Your task to perform on an android device: toggle notification dots Image 0: 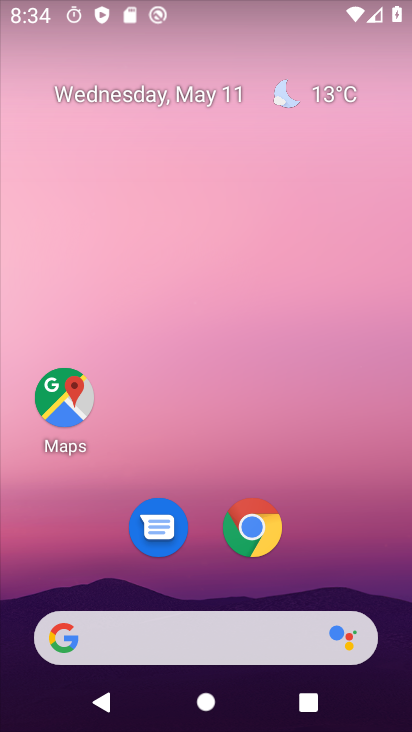
Step 0: drag from (206, 567) to (219, 72)
Your task to perform on an android device: toggle notification dots Image 1: 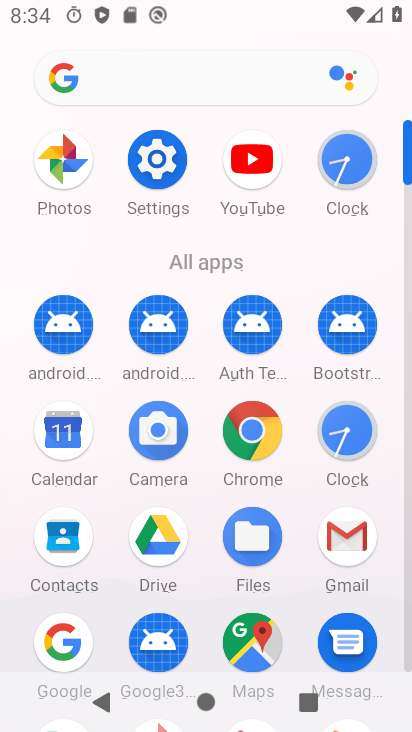
Step 1: click (165, 157)
Your task to perform on an android device: toggle notification dots Image 2: 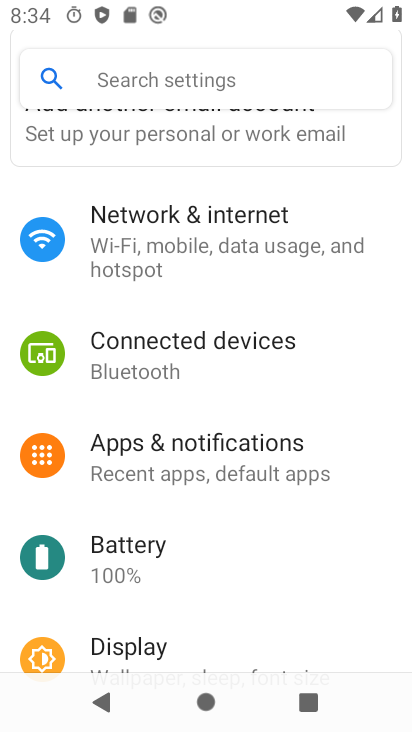
Step 2: click (181, 464)
Your task to perform on an android device: toggle notification dots Image 3: 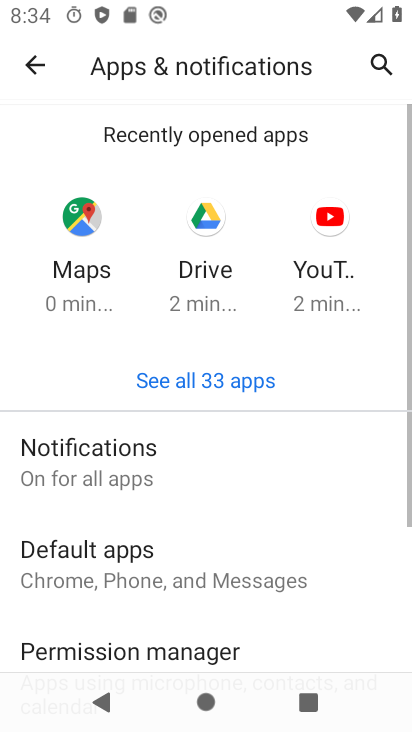
Step 3: click (141, 460)
Your task to perform on an android device: toggle notification dots Image 4: 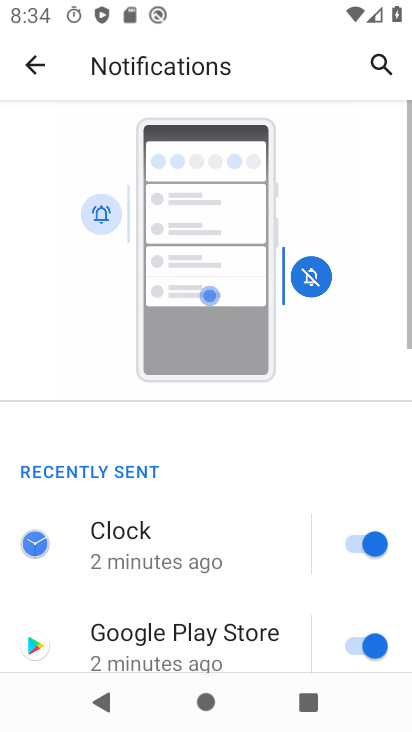
Step 4: drag from (227, 521) to (199, 7)
Your task to perform on an android device: toggle notification dots Image 5: 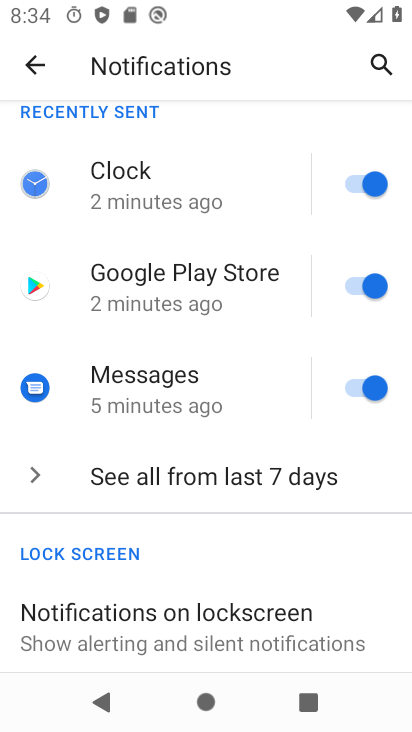
Step 5: drag from (225, 571) to (214, 159)
Your task to perform on an android device: toggle notification dots Image 6: 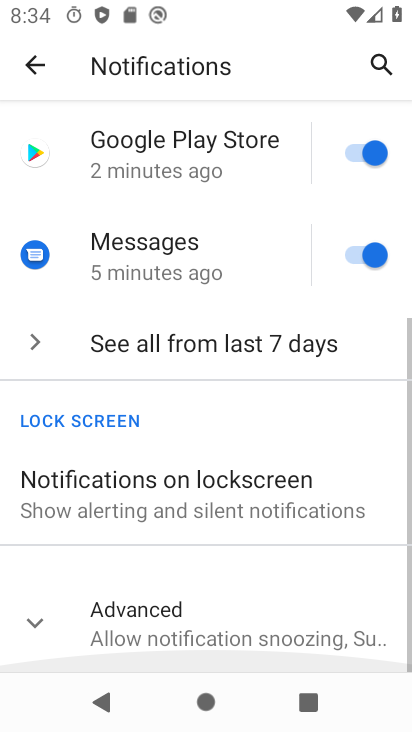
Step 6: click (174, 635)
Your task to perform on an android device: toggle notification dots Image 7: 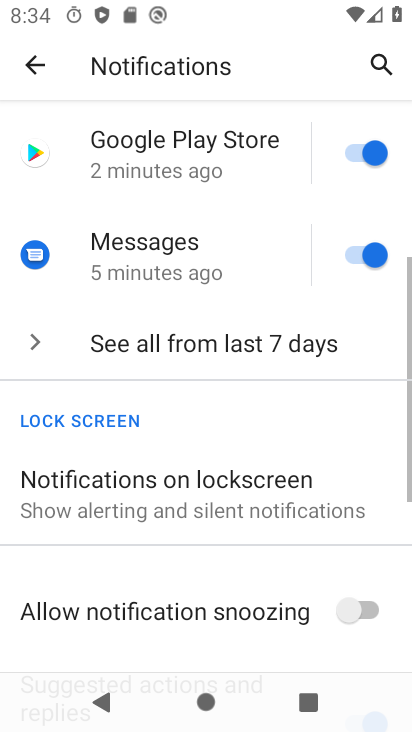
Step 7: drag from (228, 626) to (225, 222)
Your task to perform on an android device: toggle notification dots Image 8: 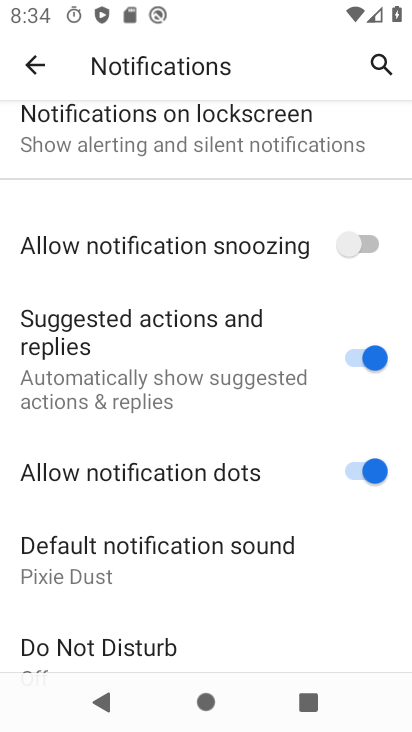
Step 8: click (361, 471)
Your task to perform on an android device: toggle notification dots Image 9: 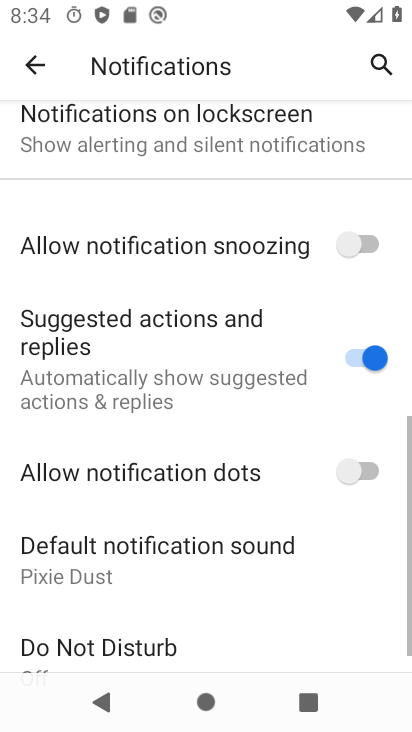
Step 9: task complete